Your task to perform on an android device: refresh tabs in the chrome app Image 0: 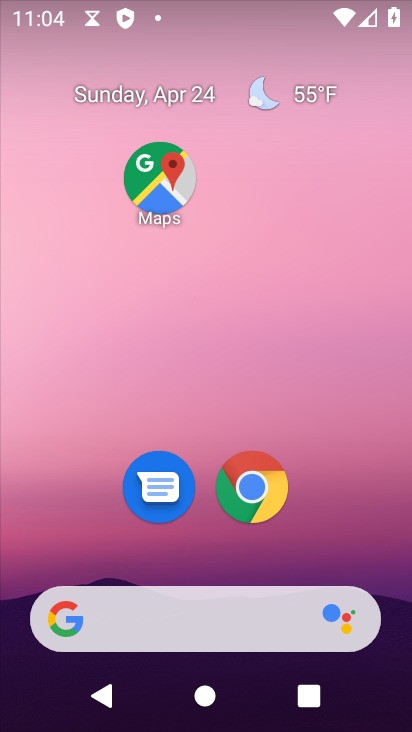
Step 0: click (264, 502)
Your task to perform on an android device: refresh tabs in the chrome app Image 1: 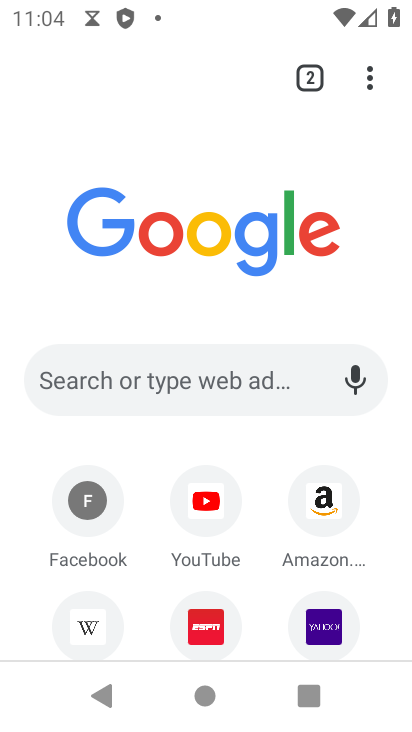
Step 1: click (366, 75)
Your task to perform on an android device: refresh tabs in the chrome app Image 2: 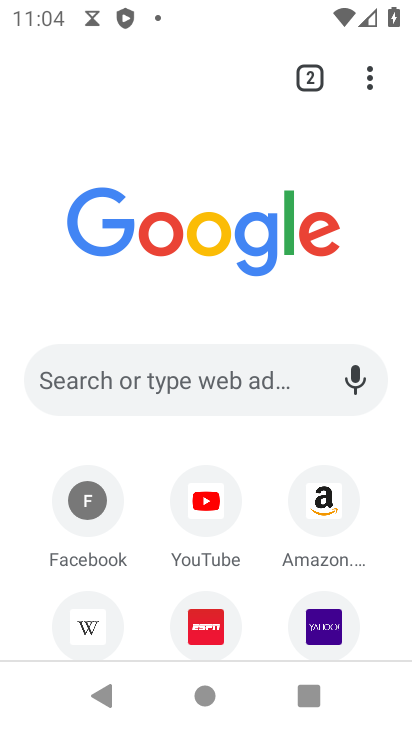
Step 2: click (366, 75)
Your task to perform on an android device: refresh tabs in the chrome app Image 3: 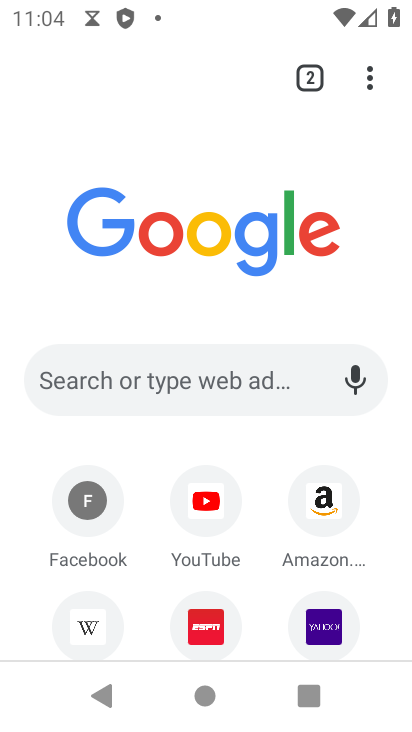
Step 3: click (367, 75)
Your task to perform on an android device: refresh tabs in the chrome app Image 4: 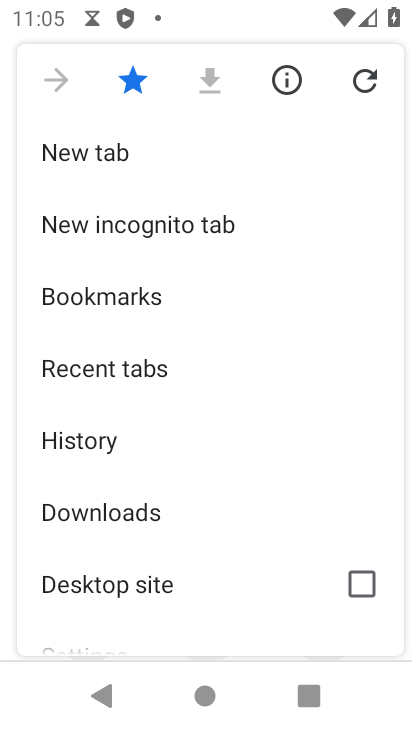
Step 4: click (356, 78)
Your task to perform on an android device: refresh tabs in the chrome app Image 5: 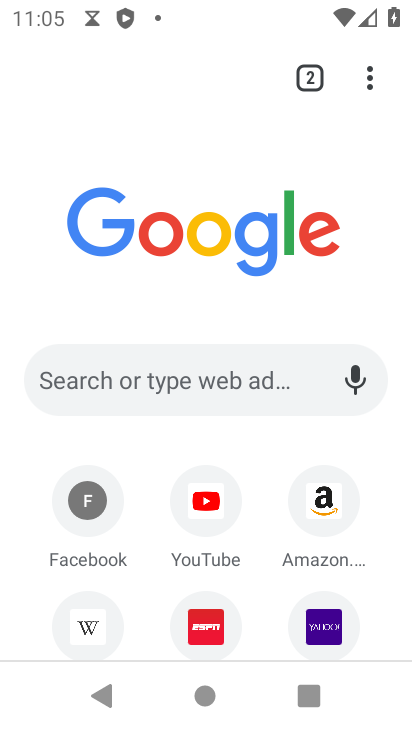
Step 5: task complete